Your task to perform on an android device: clear all cookies in the chrome app Image 0: 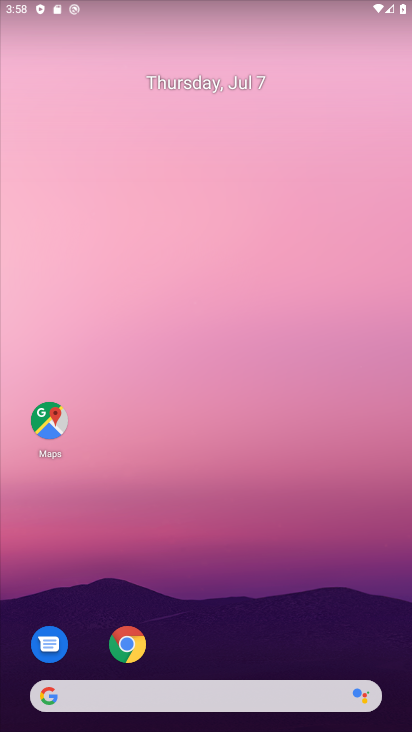
Step 0: drag from (212, 638) to (227, 217)
Your task to perform on an android device: clear all cookies in the chrome app Image 1: 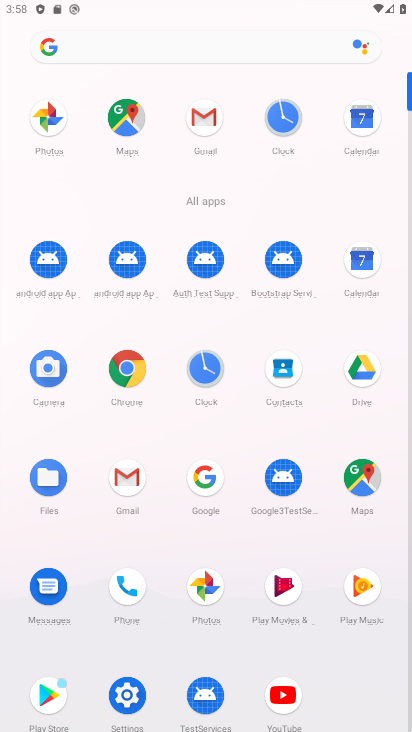
Step 1: click (135, 365)
Your task to perform on an android device: clear all cookies in the chrome app Image 2: 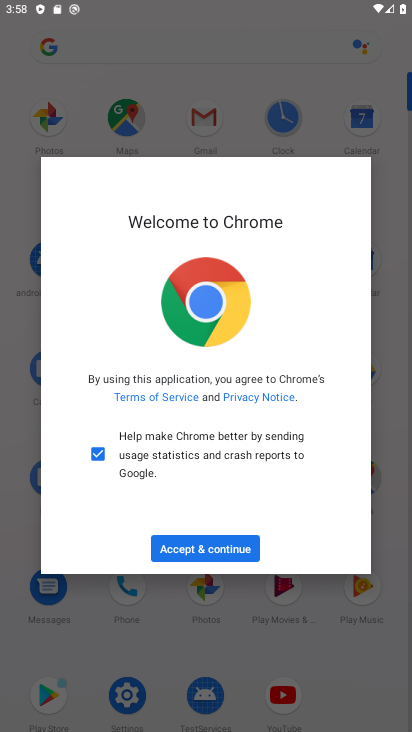
Step 2: click (232, 541)
Your task to perform on an android device: clear all cookies in the chrome app Image 3: 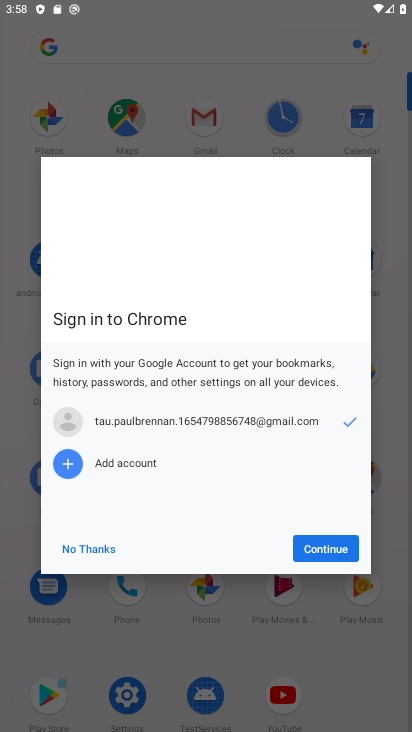
Step 3: click (297, 544)
Your task to perform on an android device: clear all cookies in the chrome app Image 4: 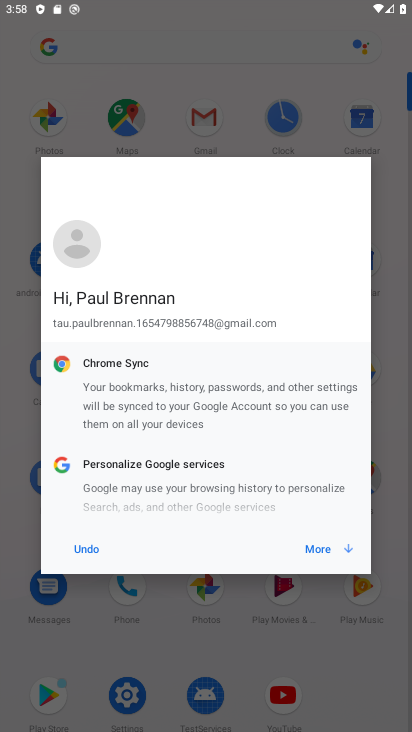
Step 4: click (294, 544)
Your task to perform on an android device: clear all cookies in the chrome app Image 5: 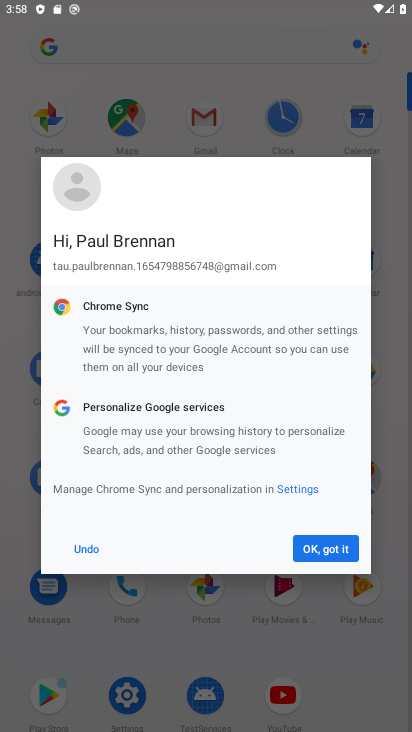
Step 5: click (294, 544)
Your task to perform on an android device: clear all cookies in the chrome app Image 6: 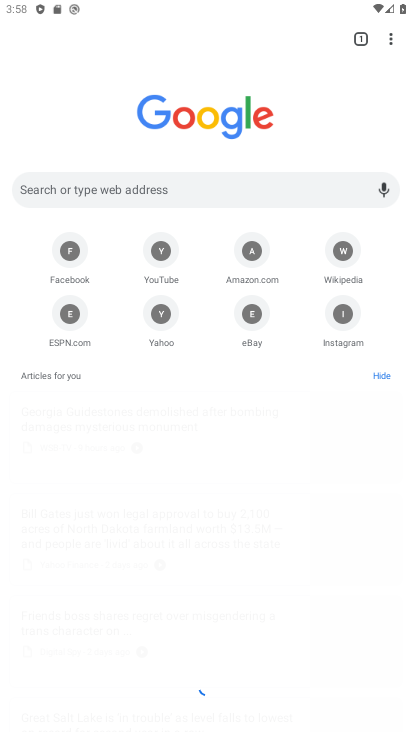
Step 6: click (384, 41)
Your task to perform on an android device: clear all cookies in the chrome app Image 7: 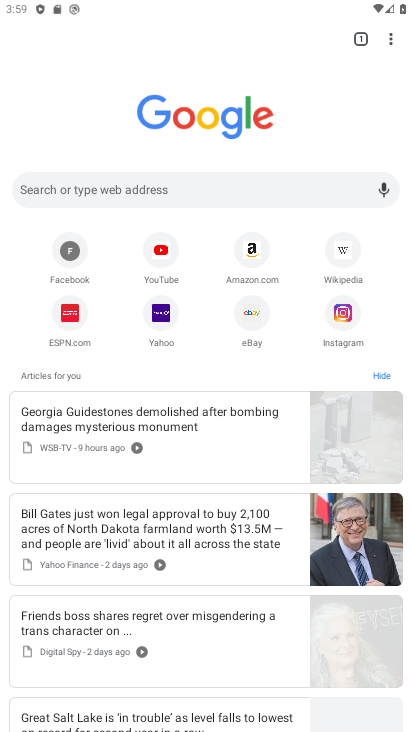
Step 7: drag from (392, 46) to (254, 217)
Your task to perform on an android device: clear all cookies in the chrome app Image 8: 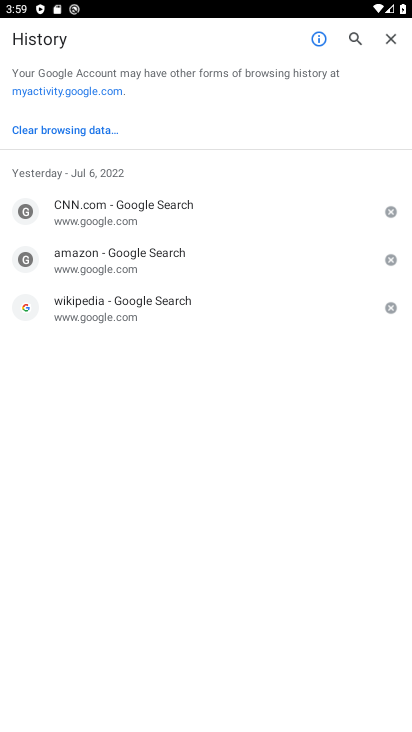
Step 8: click (86, 124)
Your task to perform on an android device: clear all cookies in the chrome app Image 9: 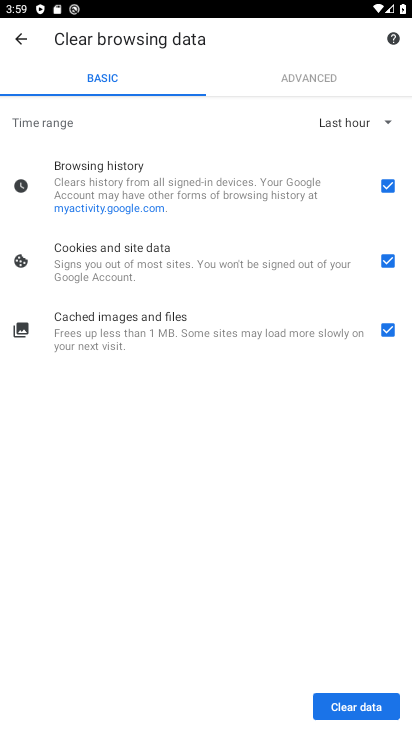
Step 9: click (368, 718)
Your task to perform on an android device: clear all cookies in the chrome app Image 10: 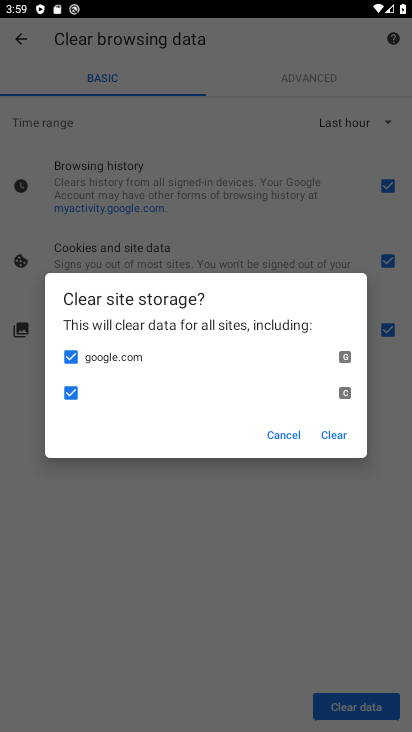
Step 10: click (334, 432)
Your task to perform on an android device: clear all cookies in the chrome app Image 11: 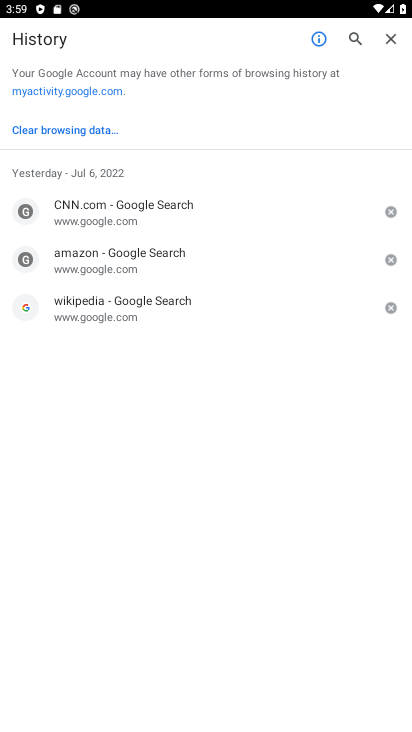
Step 11: task complete